Your task to perform on an android device: Open display settings Image 0: 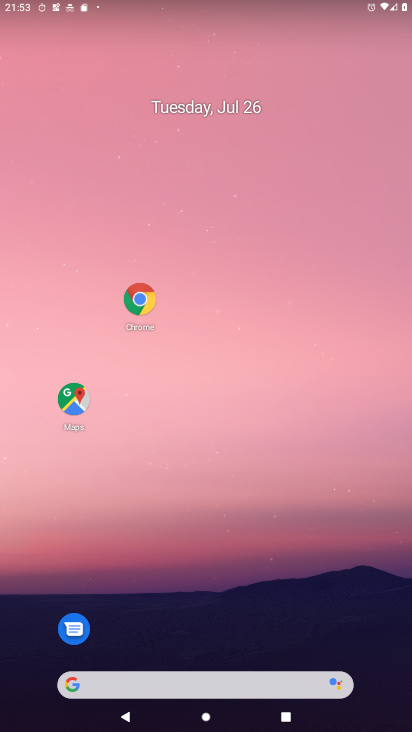
Step 0: click (292, 215)
Your task to perform on an android device: Open display settings Image 1: 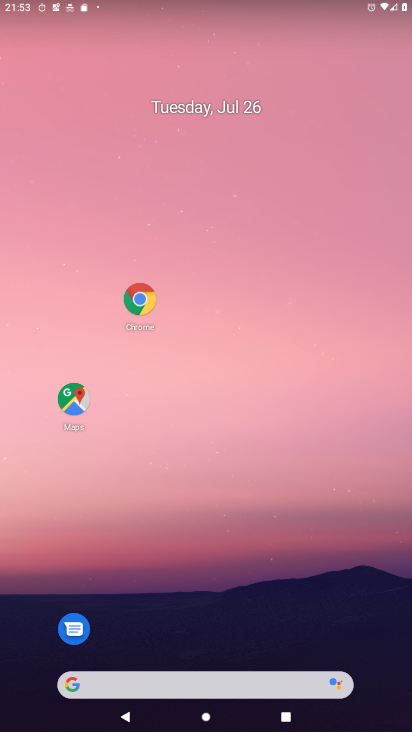
Step 1: drag from (258, 402) to (219, 159)
Your task to perform on an android device: Open display settings Image 2: 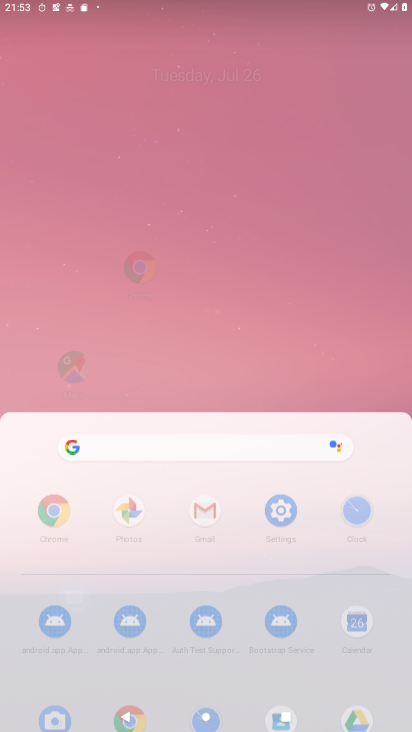
Step 2: drag from (193, 132) to (202, 54)
Your task to perform on an android device: Open display settings Image 3: 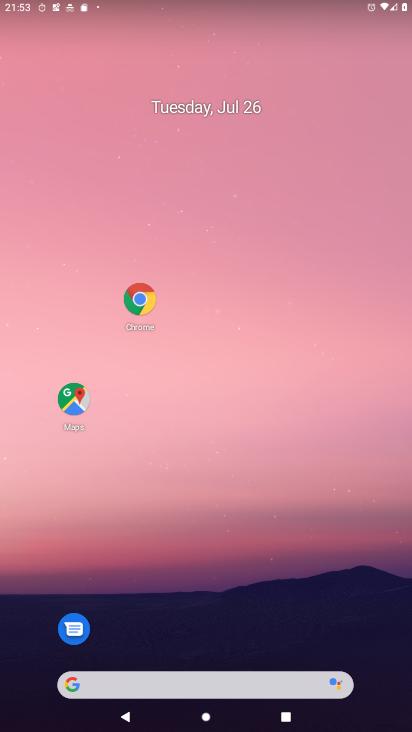
Step 3: click (191, 21)
Your task to perform on an android device: Open display settings Image 4: 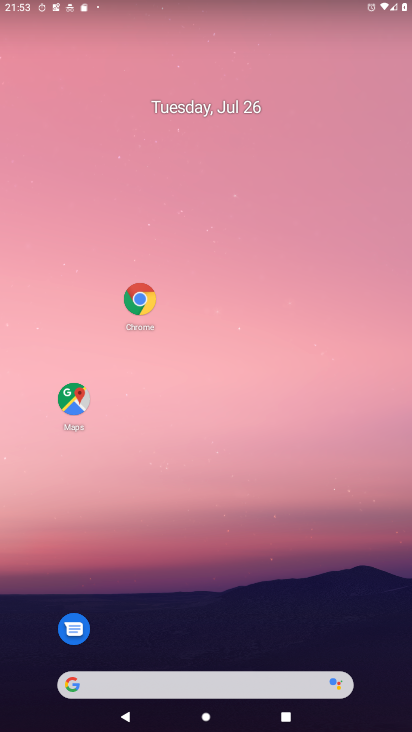
Step 4: drag from (227, 406) to (193, 24)
Your task to perform on an android device: Open display settings Image 5: 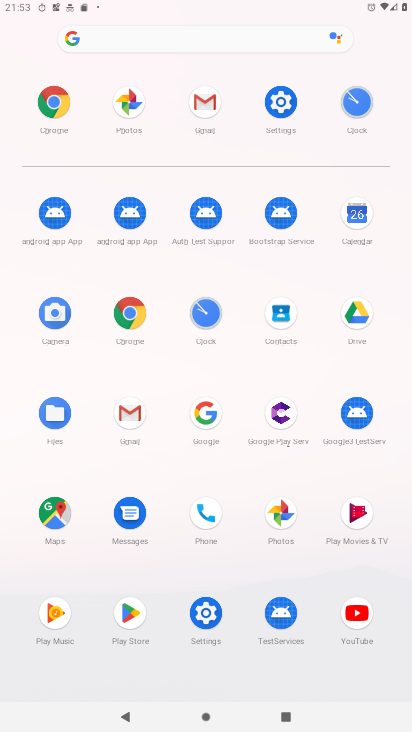
Step 5: click (219, 153)
Your task to perform on an android device: Open display settings Image 6: 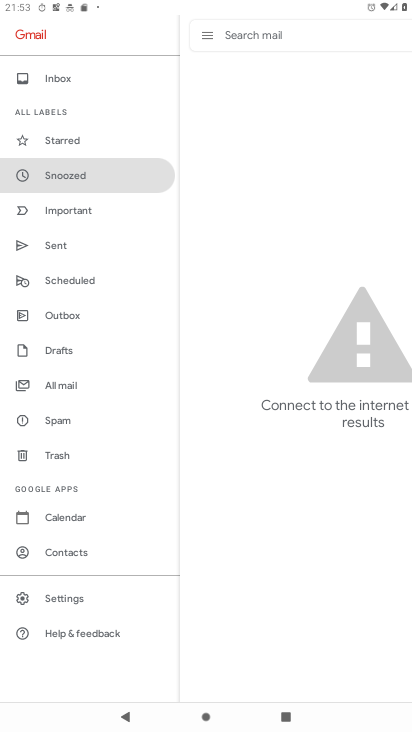
Step 6: press back button
Your task to perform on an android device: Open display settings Image 7: 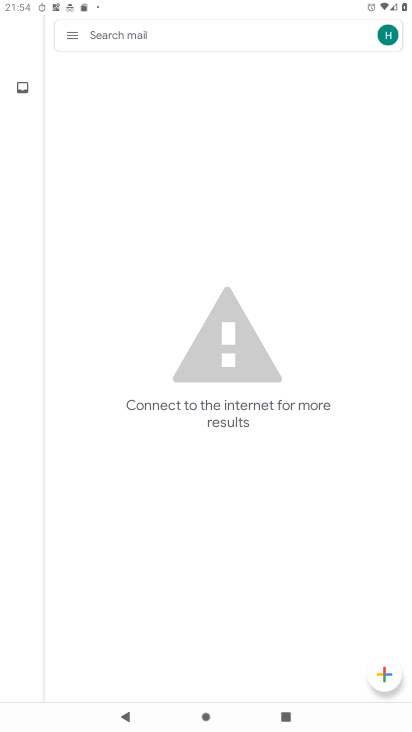
Step 7: click (78, 34)
Your task to perform on an android device: Open display settings Image 8: 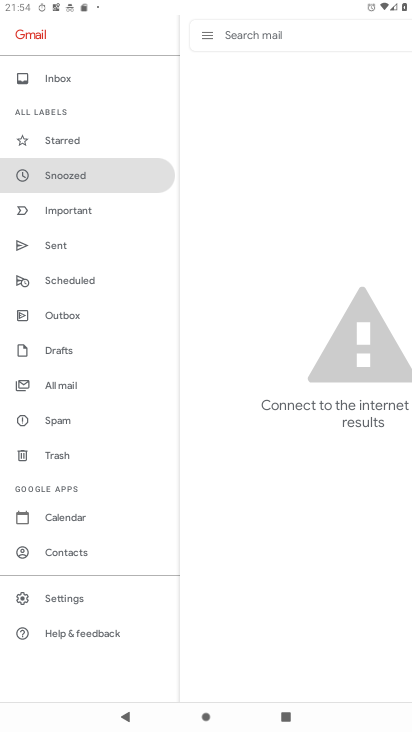
Step 8: click (78, 34)
Your task to perform on an android device: Open display settings Image 9: 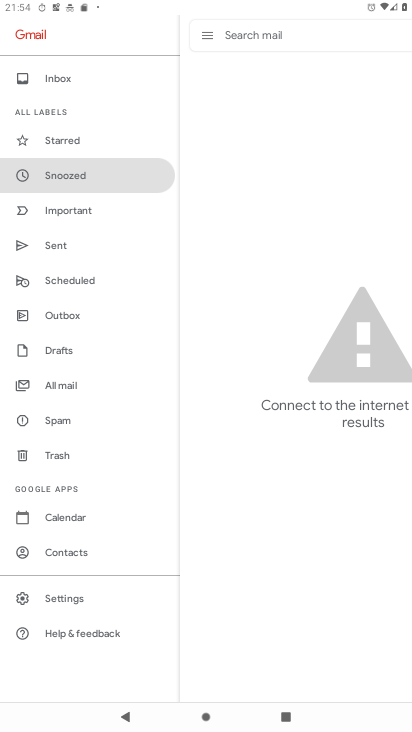
Step 9: press back button
Your task to perform on an android device: Open display settings Image 10: 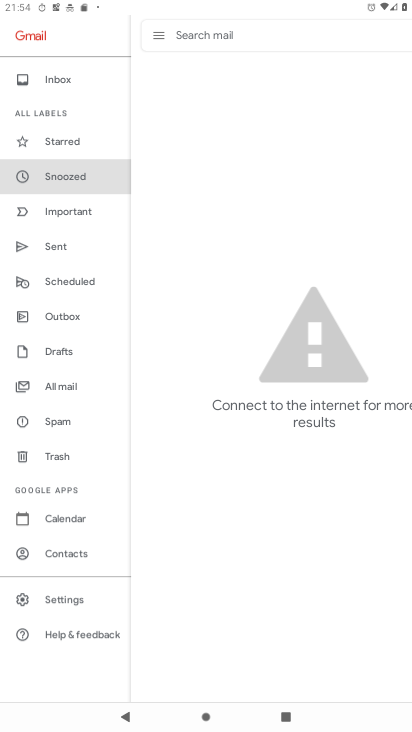
Step 10: press back button
Your task to perform on an android device: Open display settings Image 11: 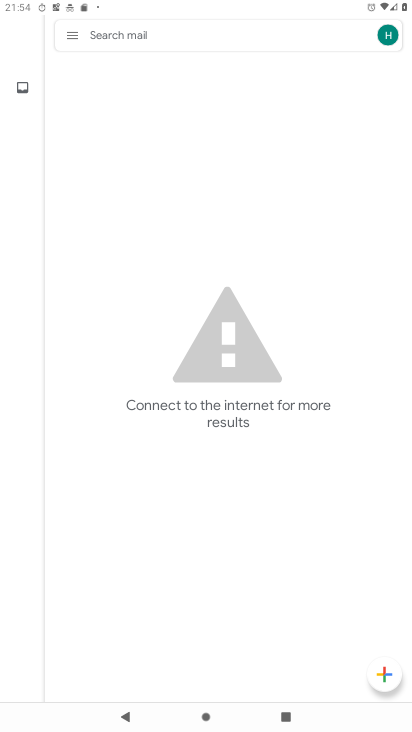
Step 11: press back button
Your task to perform on an android device: Open display settings Image 12: 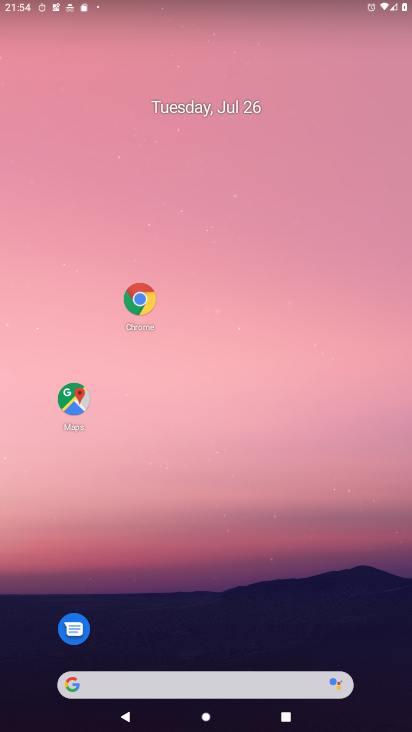
Step 12: drag from (242, 412) to (200, 24)
Your task to perform on an android device: Open display settings Image 13: 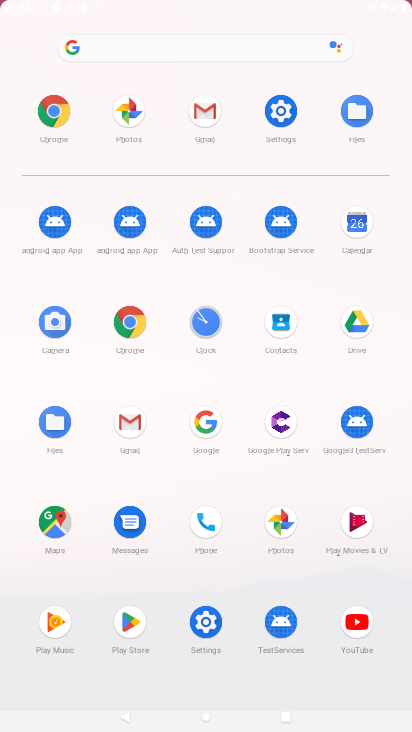
Step 13: drag from (160, 503) to (125, 1)
Your task to perform on an android device: Open display settings Image 14: 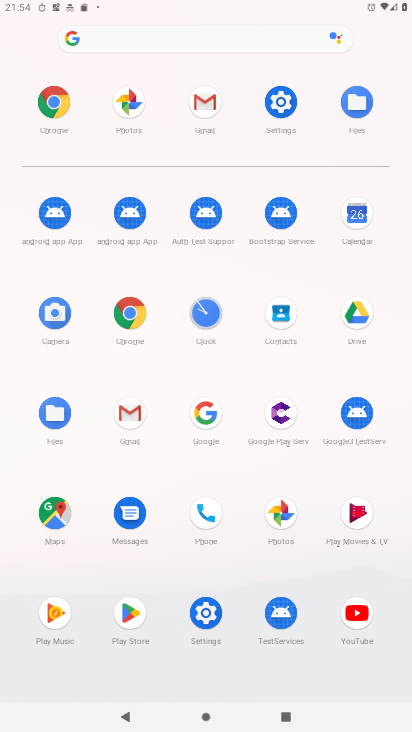
Step 14: drag from (209, 22) to (242, 36)
Your task to perform on an android device: Open display settings Image 15: 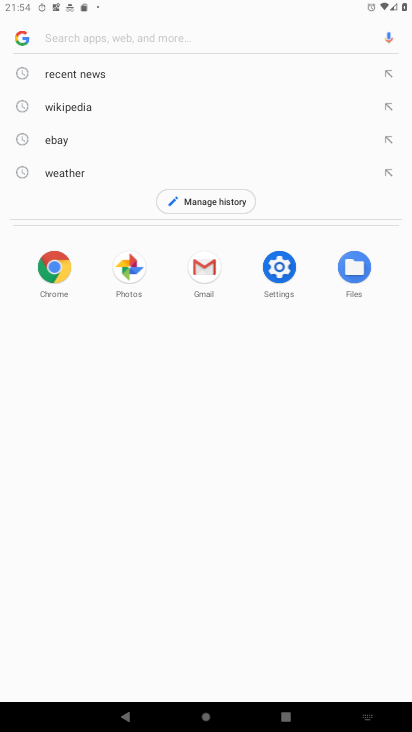
Step 15: click (208, 623)
Your task to perform on an android device: Open display settings Image 16: 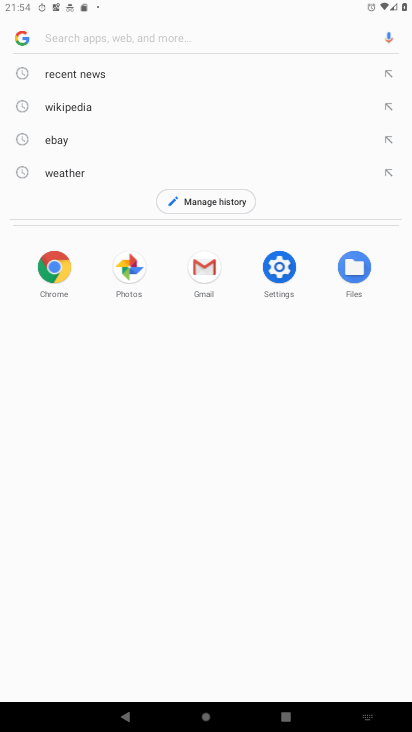
Step 16: click (281, 281)
Your task to perform on an android device: Open display settings Image 17: 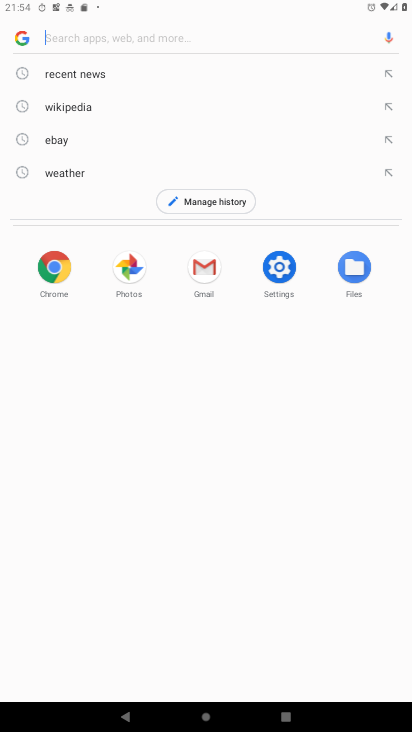
Step 17: click (285, 279)
Your task to perform on an android device: Open display settings Image 18: 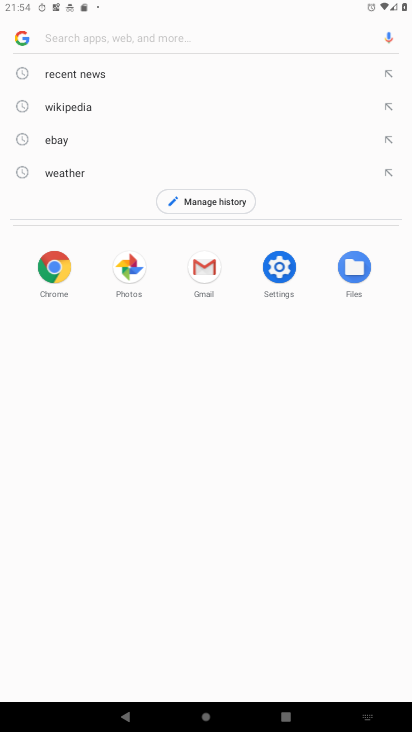
Step 18: click (287, 256)
Your task to perform on an android device: Open display settings Image 19: 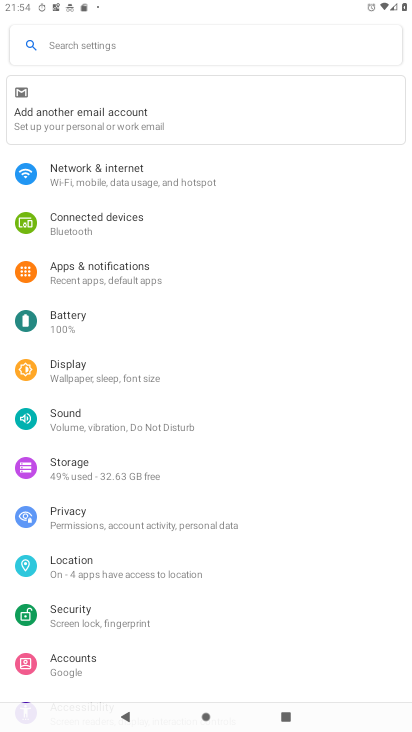
Step 19: click (283, 279)
Your task to perform on an android device: Open display settings Image 20: 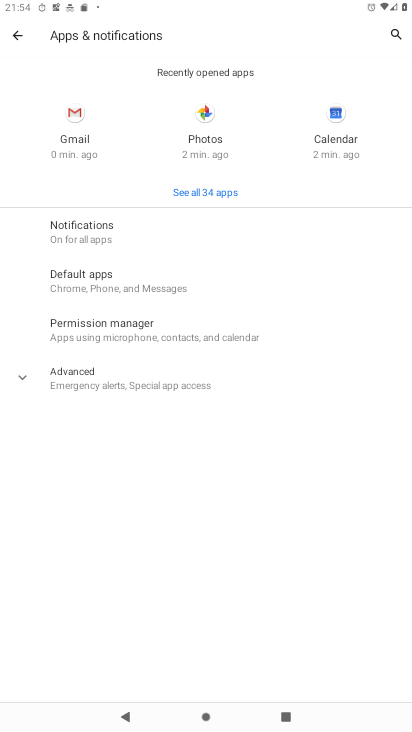
Step 20: click (15, 27)
Your task to perform on an android device: Open display settings Image 21: 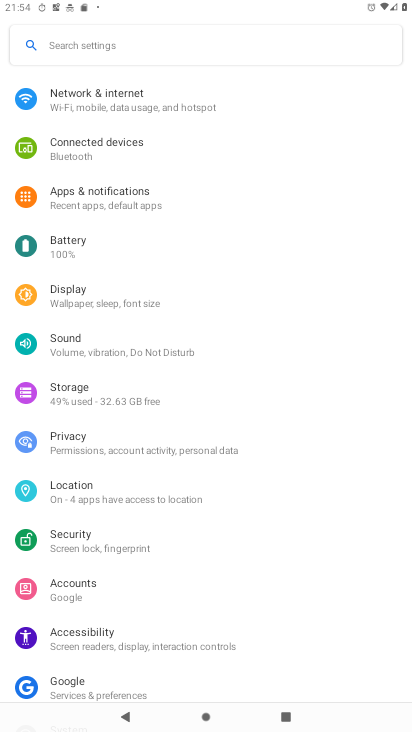
Step 21: click (15, 27)
Your task to perform on an android device: Open display settings Image 22: 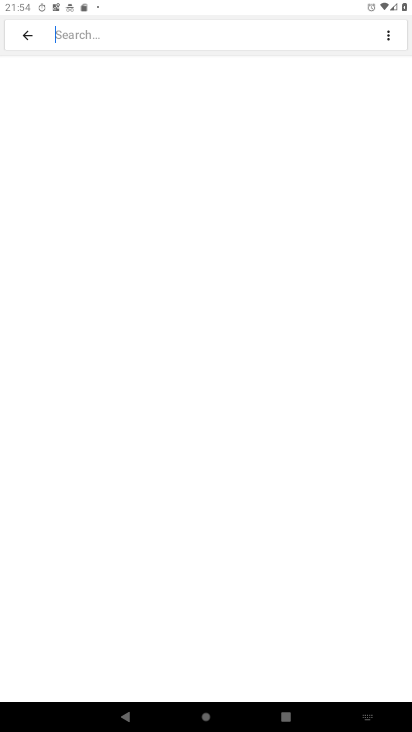
Step 22: click (79, 371)
Your task to perform on an android device: Open display settings Image 23: 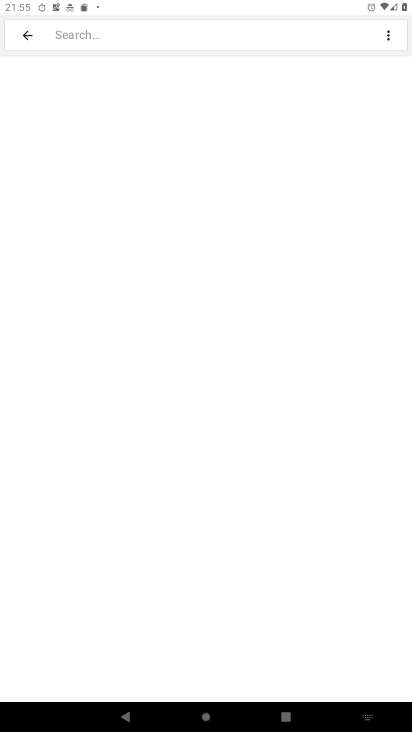
Step 23: click (79, 371)
Your task to perform on an android device: Open display settings Image 24: 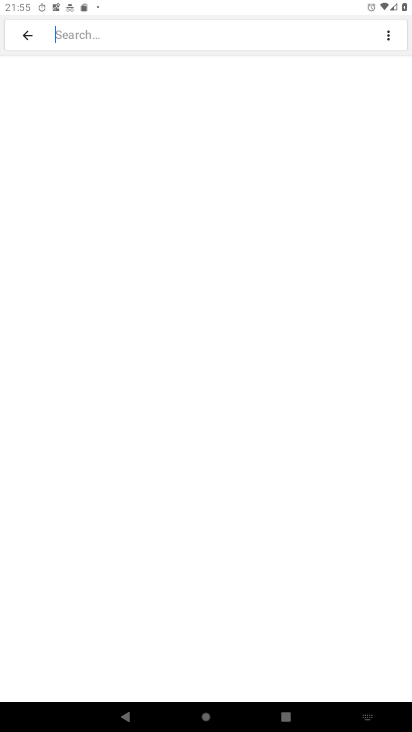
Step 24: click (25, 29)
Your task to perform on an android device: Open display settings Image 25: 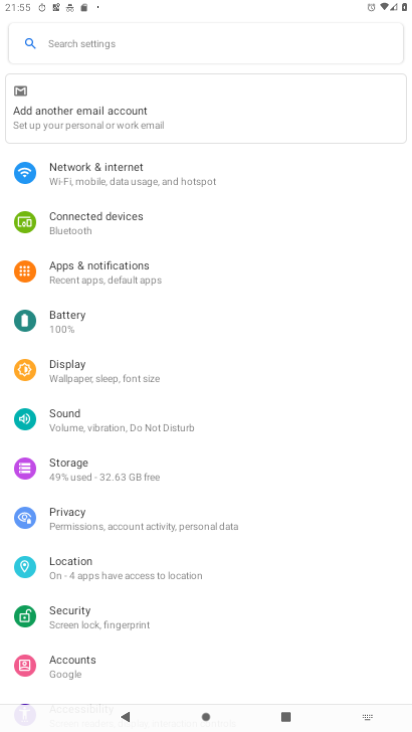
Step 25: click (25, 29)
Your task to perform on an android device: Open display settings Image 26: 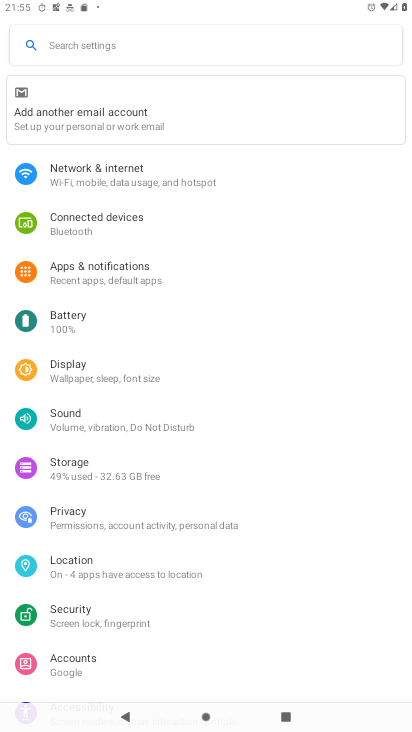
Step 26: drag from (110, 518) to (111, 185)
Your task to perform on an android device: Open display settings Image 27: 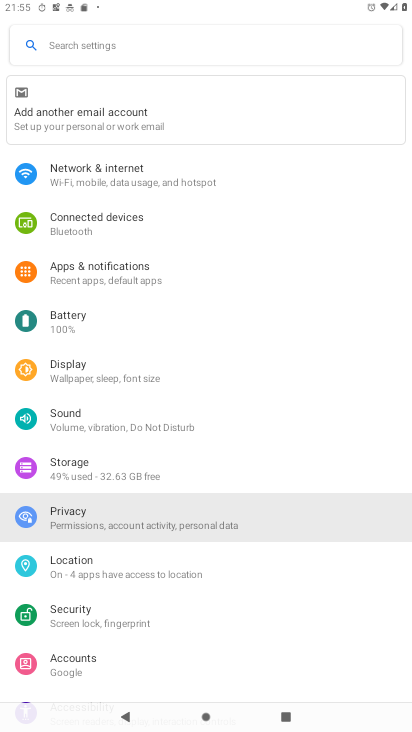
Step 27: click (92, 367)
Your task to perform on an android device: Open display settings Image 28: 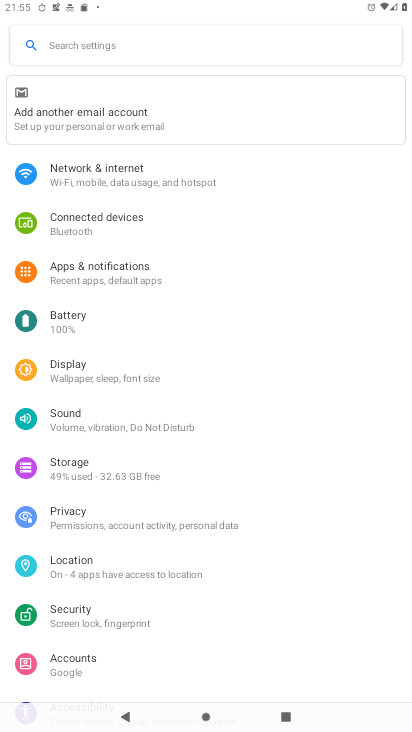
Step 28: click (92, 367)
Your task to perform on an android device: Open display settings Image 29: 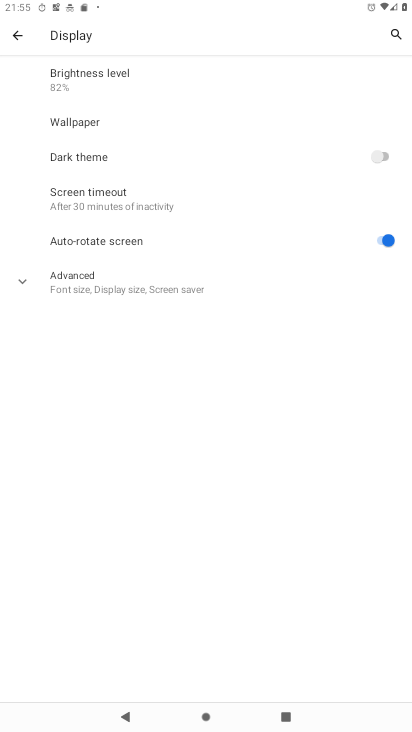
Step 29: click (92, 367)
Your task to perform on an android device: Open display settings Image 30: 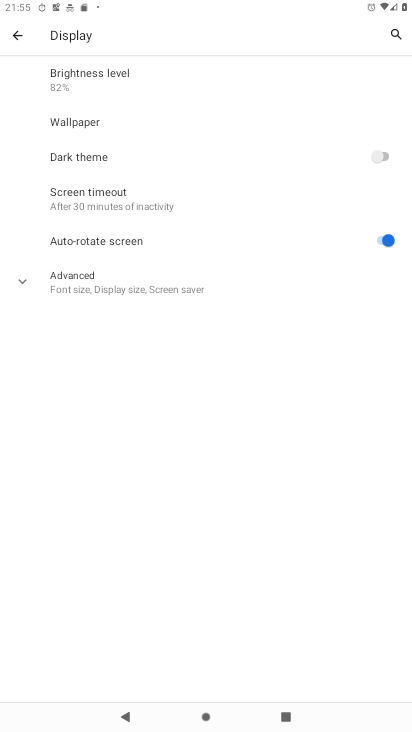
Step 30: task complete